Your task to perform on an android device: delete location history Image 0: 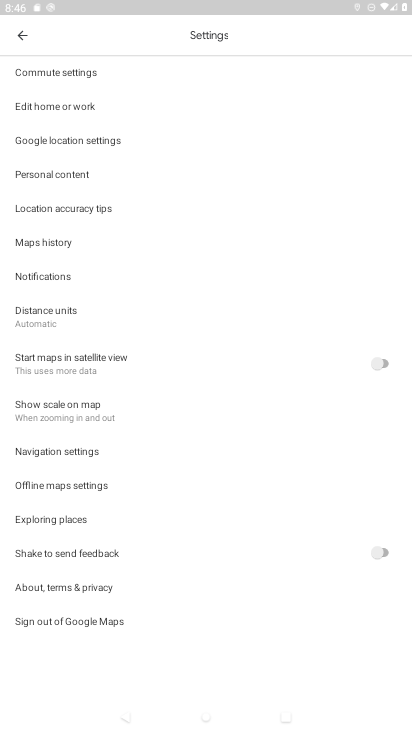
Step 0: press home button
Your task to perform on an android device: delete location history Image 1: 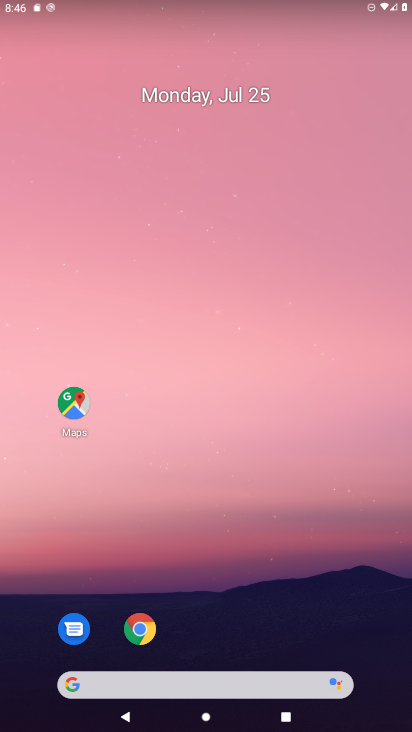
Step 1: click (68, 408)
Your task to perform on an android device: delete location history Image 2: 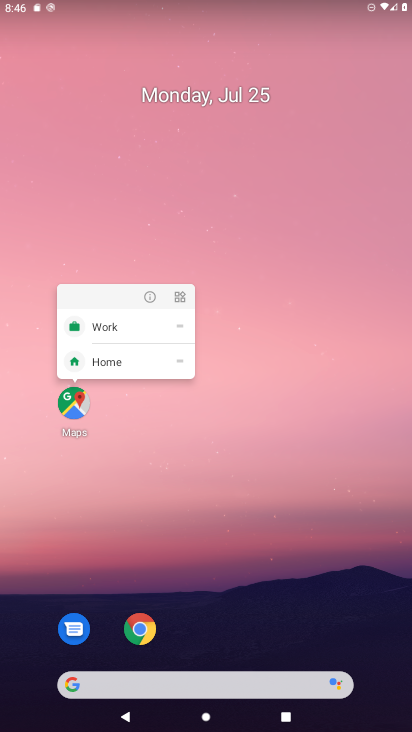
Step 2: click (68, 408)
Your task to perform on an android device: delete location history Image 3: 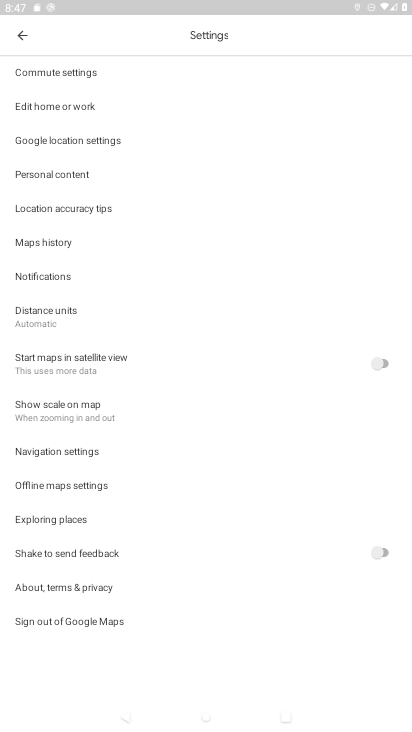
Step 3: click (20, 37)
Your task to perform on an android device: delete location history Image 4: 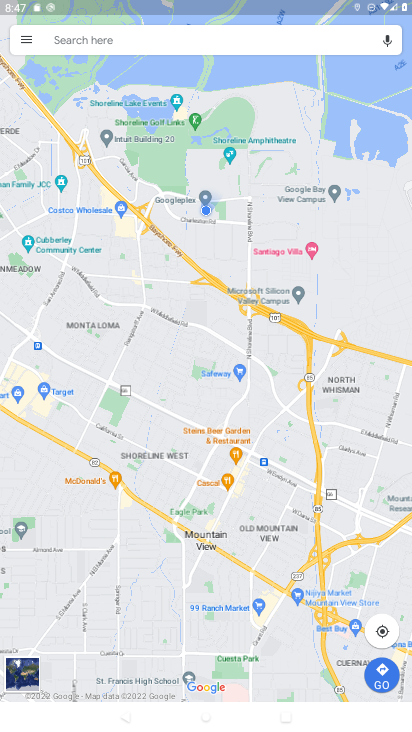
Step 4: click (24, 37)
Your task to perform on an android device: delete location history Image 5: 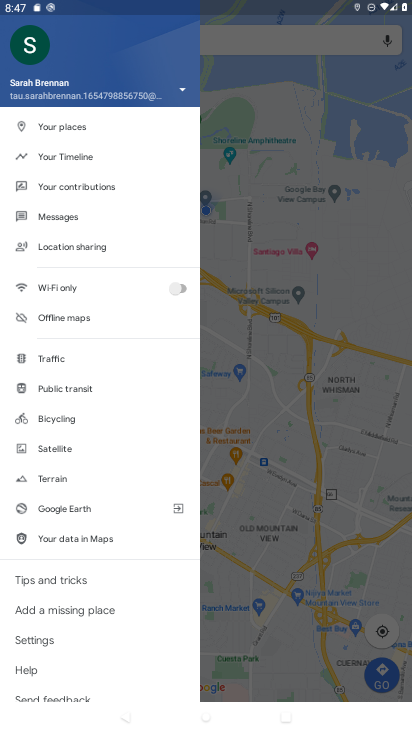
Step 5: click (50, 147)
Your task to perform on an android device: delete location history Image 6: 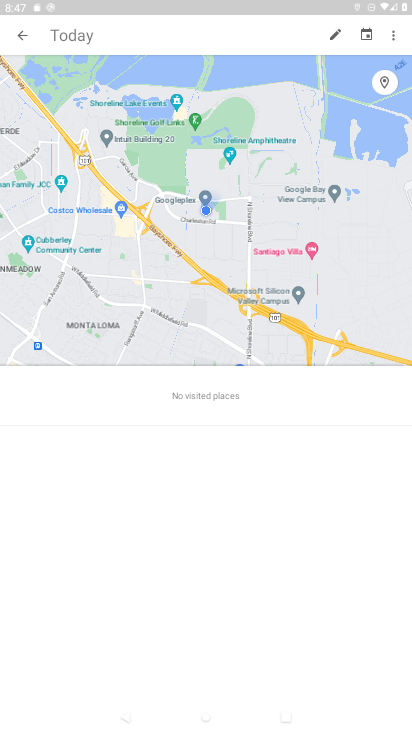
Step 6: click (393, 37)
Your task to perform on an android device: delete location history Image 7: 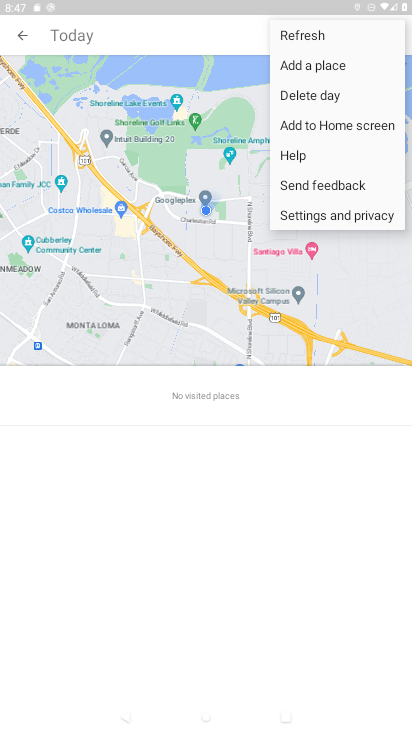
Step 7: click (331, 213)
Your task to perform on an android device: delete location history Image 8: 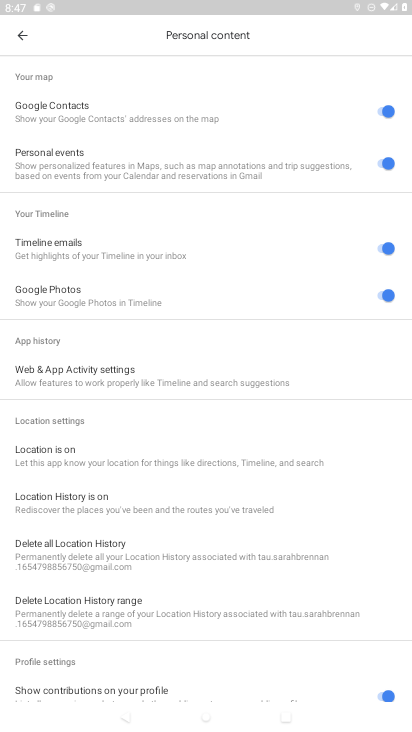
Step 8: click (60, 542)
Your task to perform on an android device: delete location history Image 9: 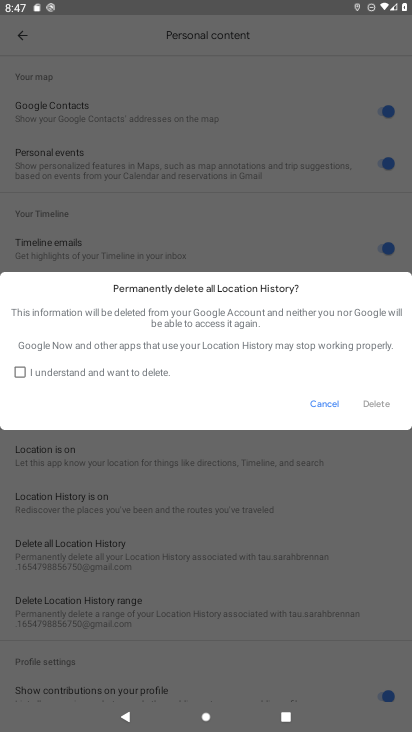
Step 9: click (21, 374)
Your task to perform on an android device: delete location history Image 10: 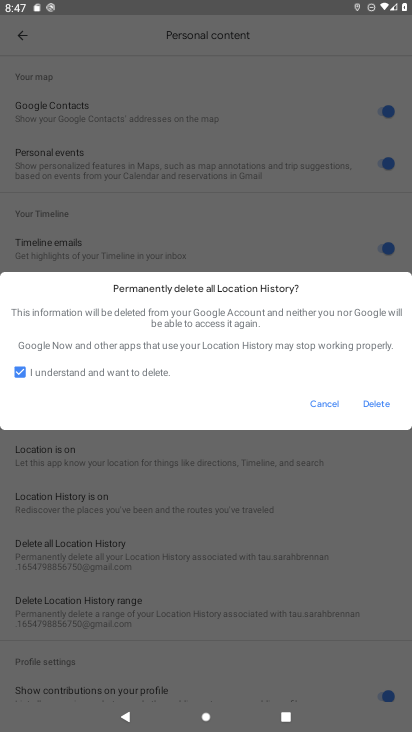
Step 10: click (375, 404)
Your task to perform on an android device: delete location history Image 11: 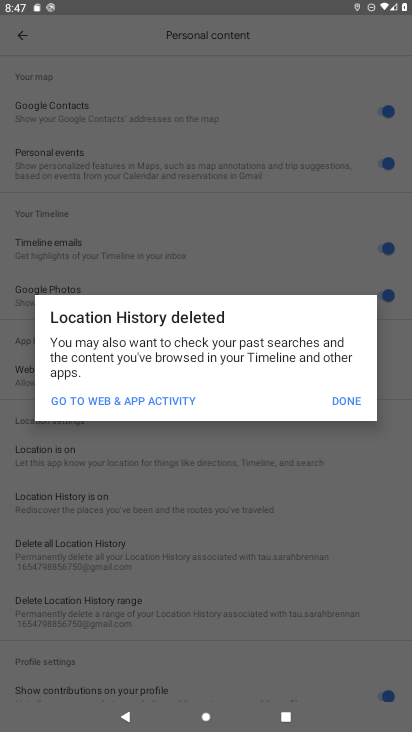
Step 11: click (361, 399)
Your task to perform on an android device: delete location history Image 12: 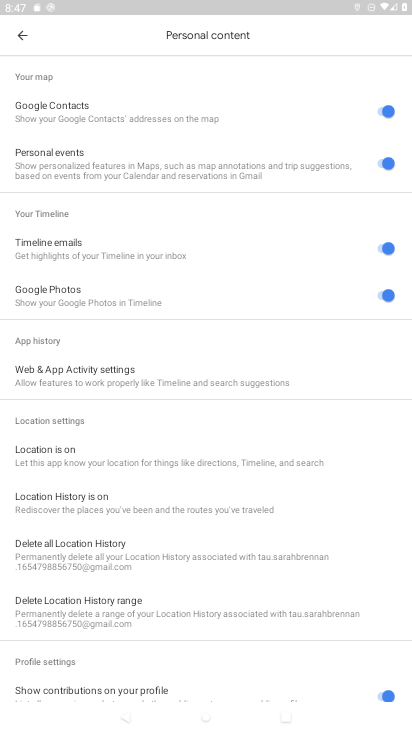
Step 12: task complete